Your task to perform on an android device: manage bookmarks in the chrome app Image 0: 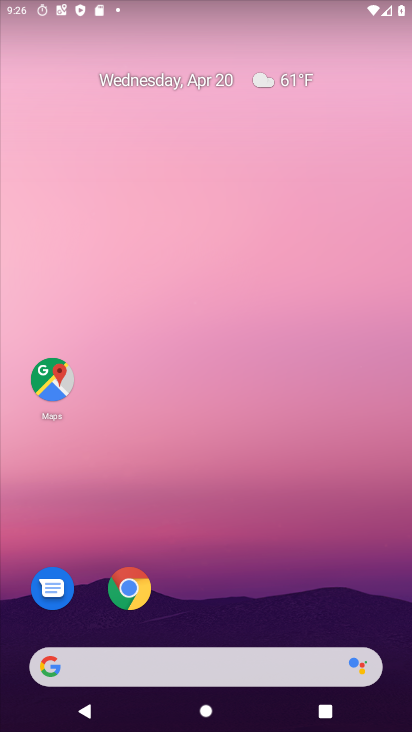
Step 0: drag from (205, 546) to (163, 47)
Your task to perform on an android device: manage bookmarks in the chrome app Image 1: 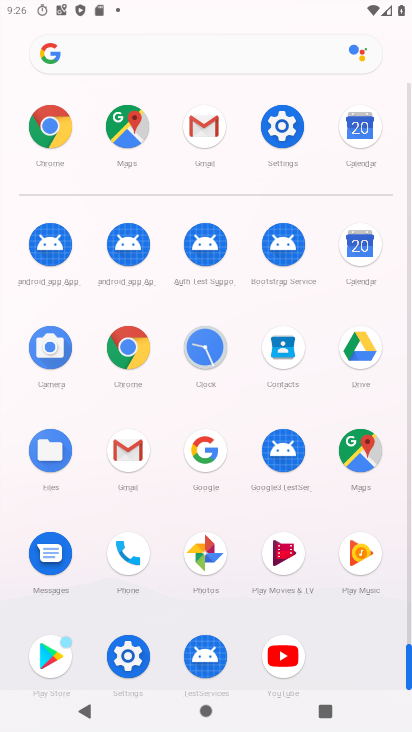
Step 1: click (130, 345)
Your task to perform on an android device: manage bookmarks in the chrome app Image 2: 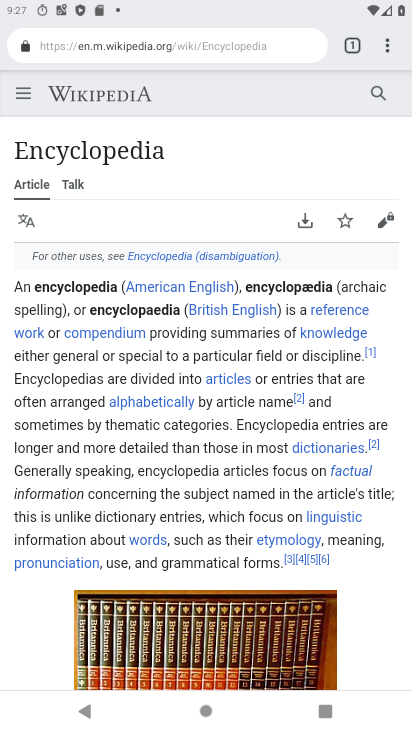
Step 2: drag from (390, 45) to (243, 220)
Your task to perform on an android device: manage bookmarks in the chrome app Image 3: 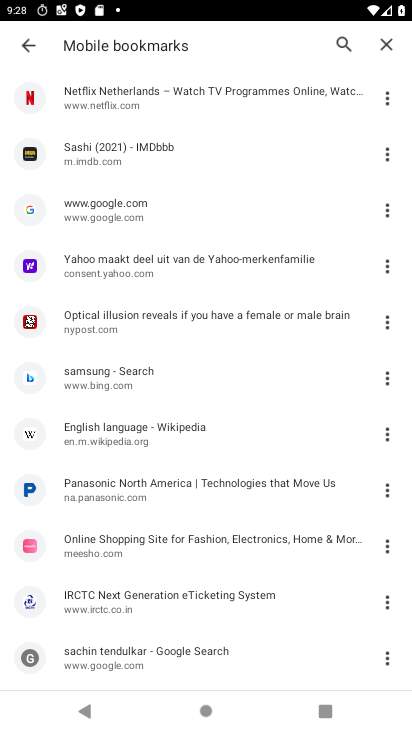
Step 3: click (383, 99)
Your task to perform on an android device: manage bookmarks in the chrome app Image 4: 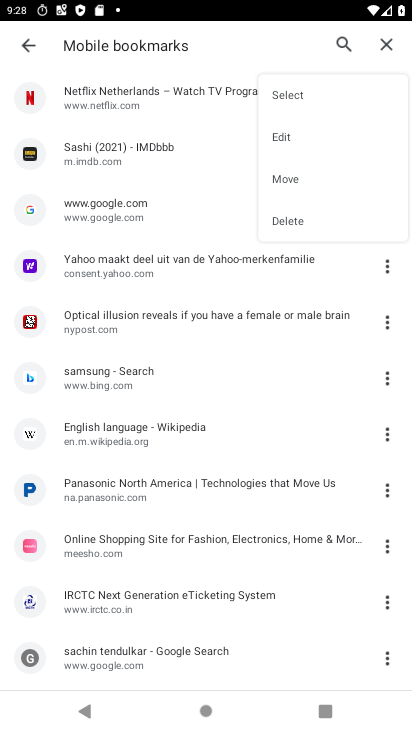
Step 4: click (291, 220)
Your task to perform on an android device: manage bookmarks in the chrome app Image 5: 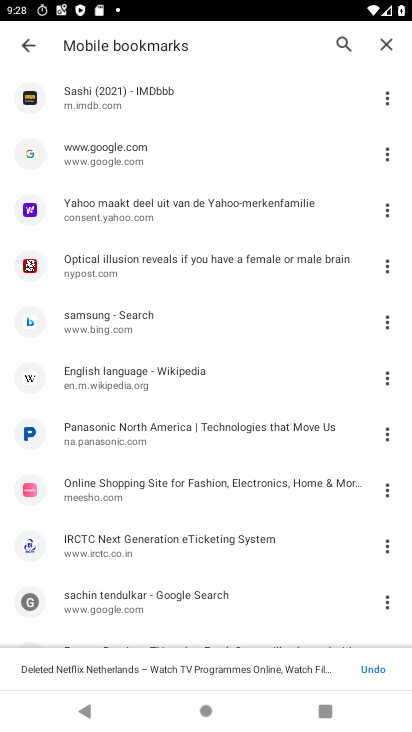
Step 5: click (384, 147)
Your task to perform on an android device: manage bookmarks in the chrome app Image 6: 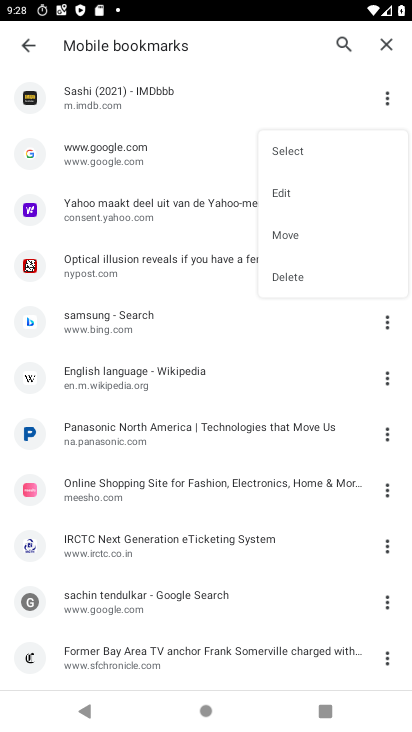
Step 6: click (279, 275)
Your task to perform on an android device: manage bookmarks in the chrome app Image 7: 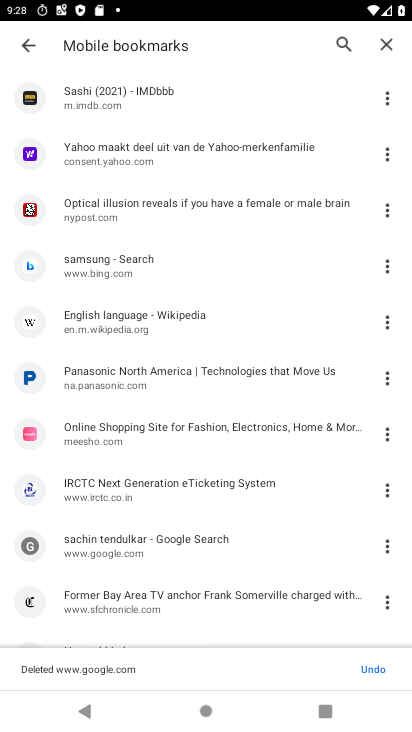
Step 7: click (391, 542)
Your task to perform on an android device: manage bookmarks in the chrome app Image 8: 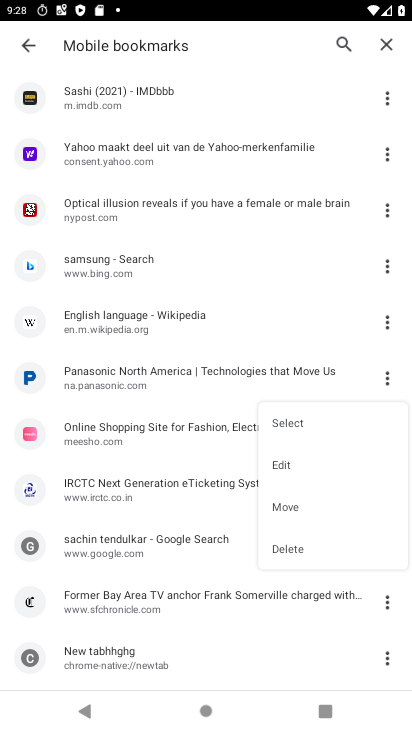
Step 8: click (313, 550)
Your task to perform on an android device: manage bookmarks in the chrome app Image 9: 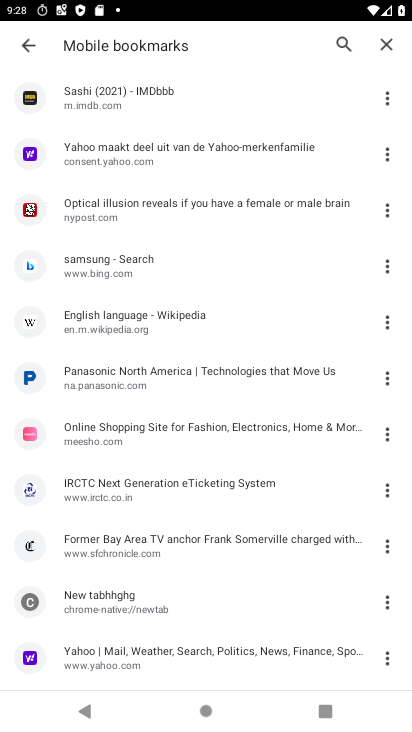
Step 9: task complete